Your task to perform on an android device: set default search engine in the chrome app Image 0: 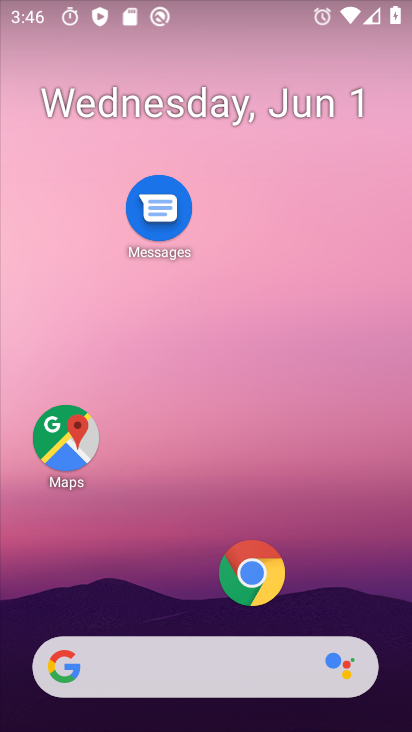
Step 0: click (236, 597)
Your task to perform on an android device: set default search engine in the chrome app Image 1: 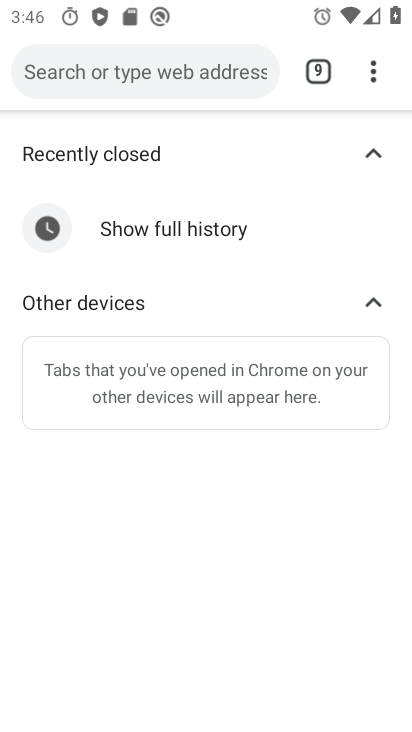
Step 1: drag from (378, 82) to (177, 587)
Your task to perform on an android device: set default search engine in the chrome app Image 2: 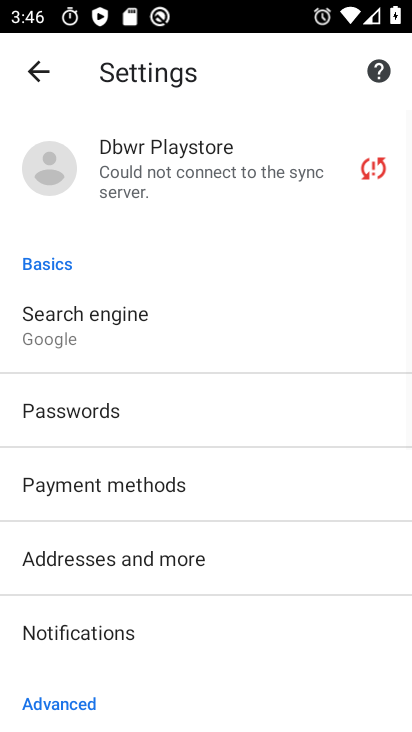
Step 2: click (104, 330)
Your task to perform on an android device: set default search engine in the chrome app Image 3: 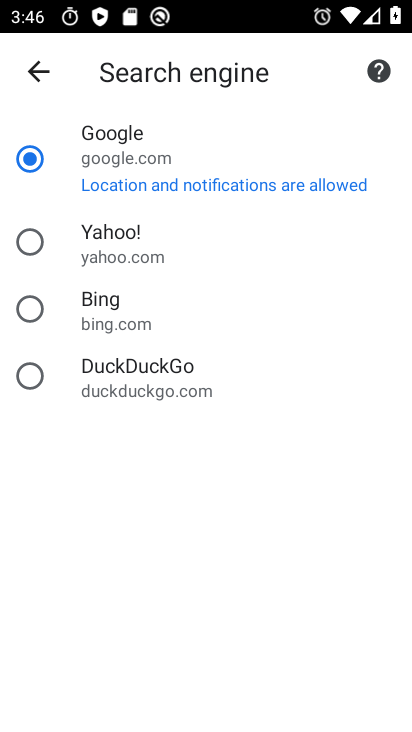
Step 3: click (86, 238)
Your task to perform on an android device: set default search engine in the chrome app Image 4: 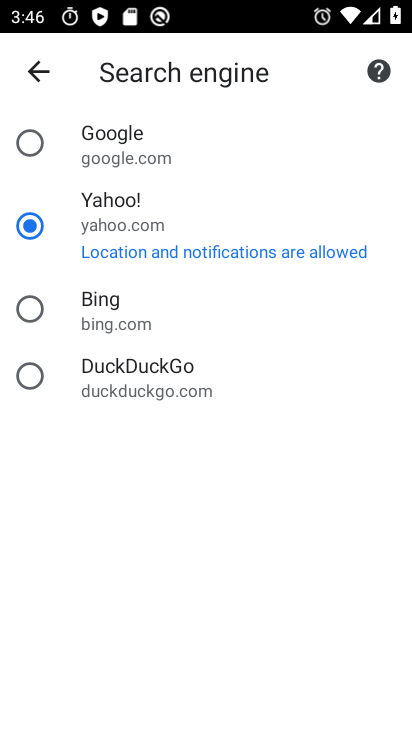
Step 4: task complete